Your task to perform on an android device: turn off translation in the chrome app Image 0: 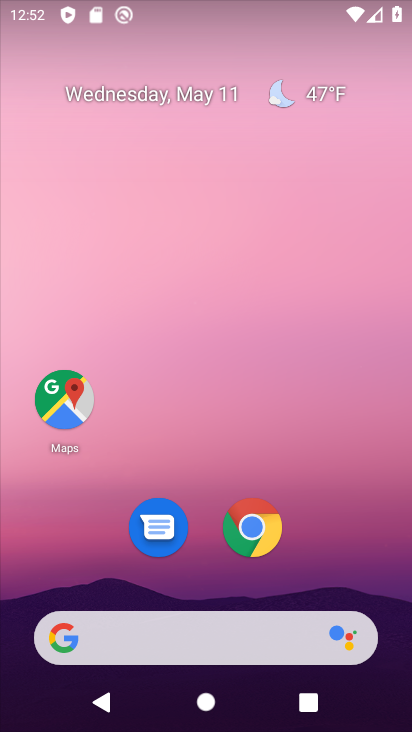
Step 0: click (247, 528)
Your task to perform on an android device: turn off translation in the chrome app Image 1: 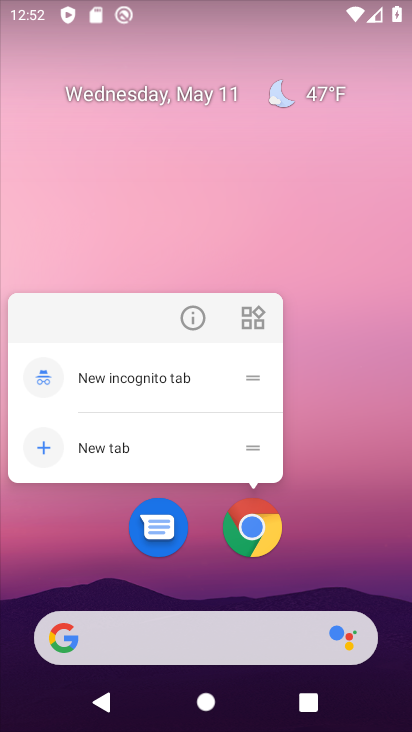
Step 1: click (249, 527)
Your task to perform on an android device: turn off translation in the chrome app Image 2: 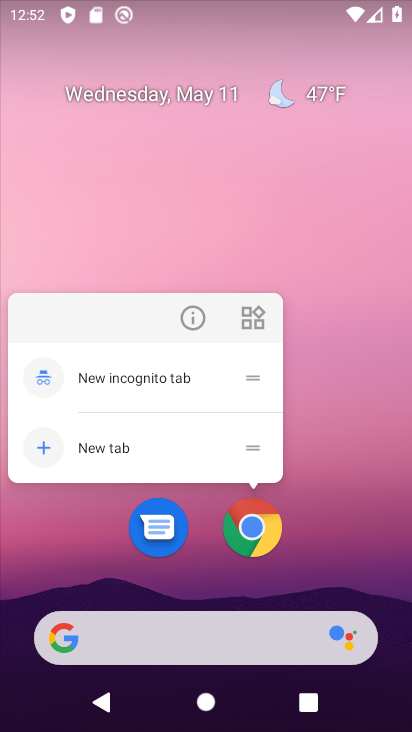
Step 2: click (250, 527)
Your task to perform on an android device: turn off translation in the chrome app Image 3: 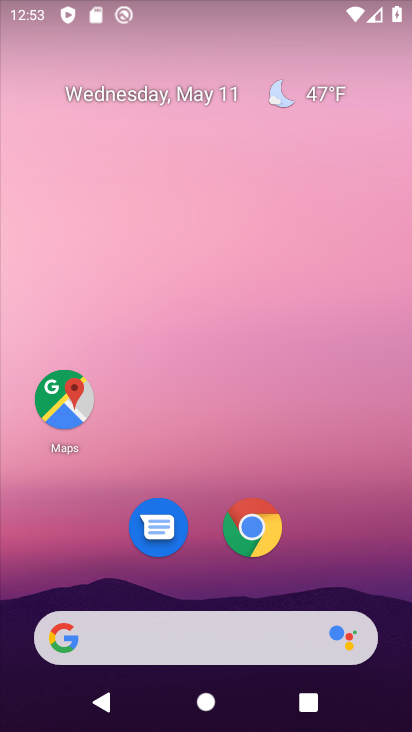
Step 3: click (276, 527)
Your task to perform on an android device: turn off translation in the chrome app Image 4: 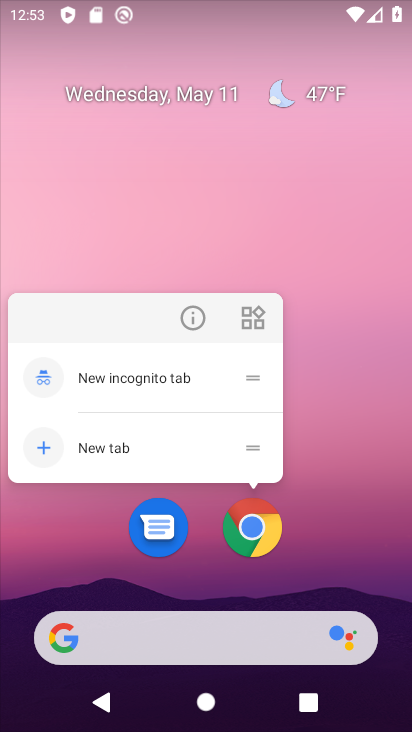
Step 4: click (271, 529)
Your task to perform on an android device: turn off translation in the chrome app Image 5: 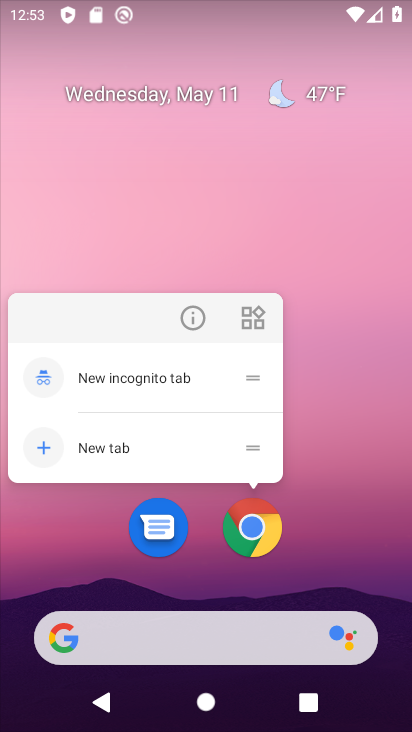
Step 5: click (272, 528)
Your task to perform on an android device: turn off translation in the chrome app Image 6: 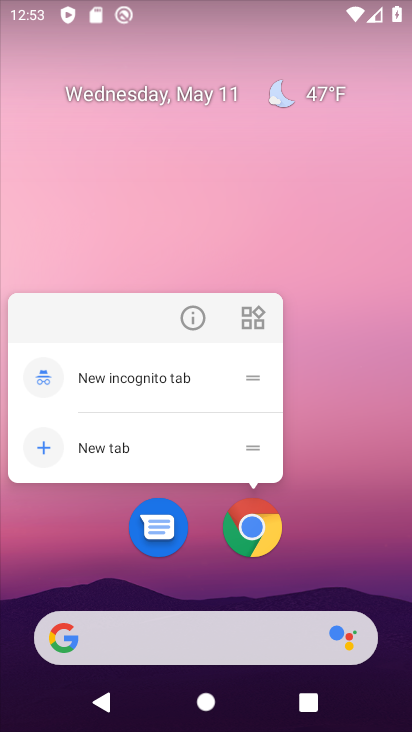
Step 6: click (260, 523)
Your task to perform on an android device: turn off translation in the chrome app Image 7: 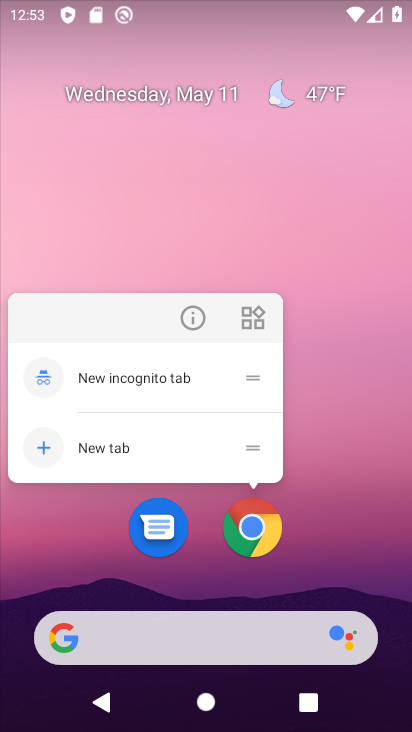
Step 7: click (259, 522)
Your task to perform on an android device: turn off translation in the chrome app Image 8: 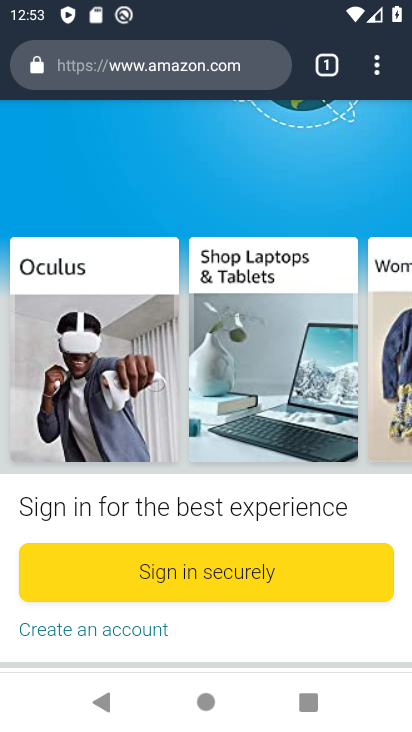
Step 8: click (389, 62)
Your task to perform on an android device: turn off translation in the chrome app Image 9: 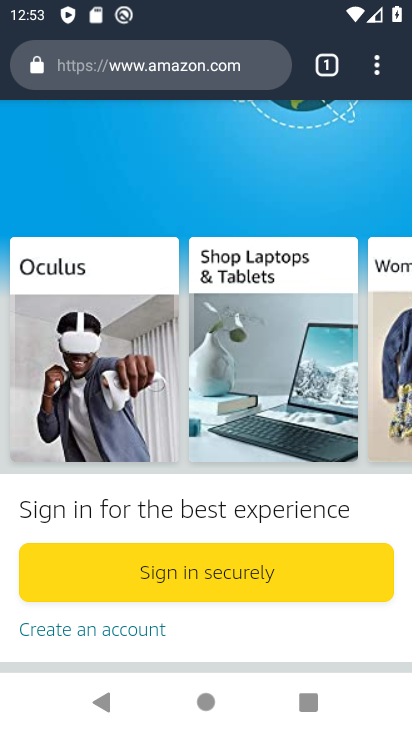
Step 9: click (377, 61)
Your task to perform on an android device: turn off translation in the chrome app Image 10: 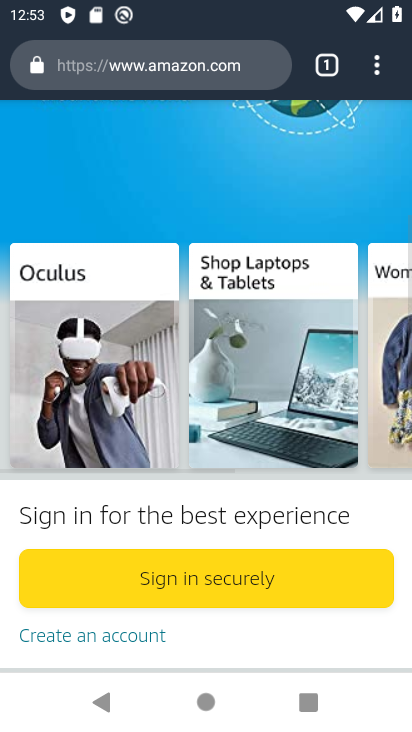
Step 10: click (376, 61)
Your task to perform on an android device: turn off translation in the chrome app Image 11: 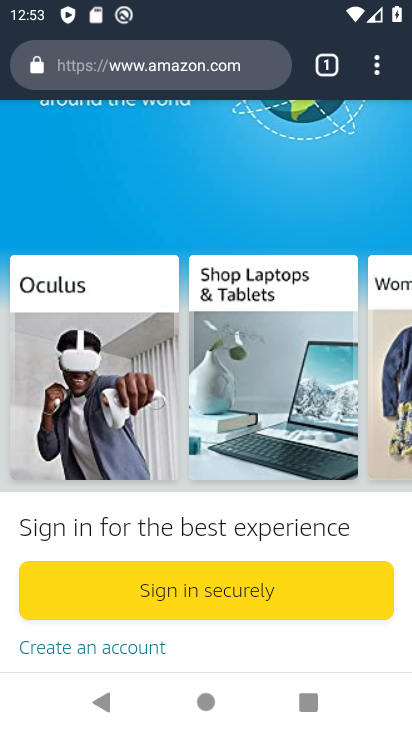
Step 11: click (336, 60)
Your task to perform on an android device: turn off translation in the chrome app Image 12: 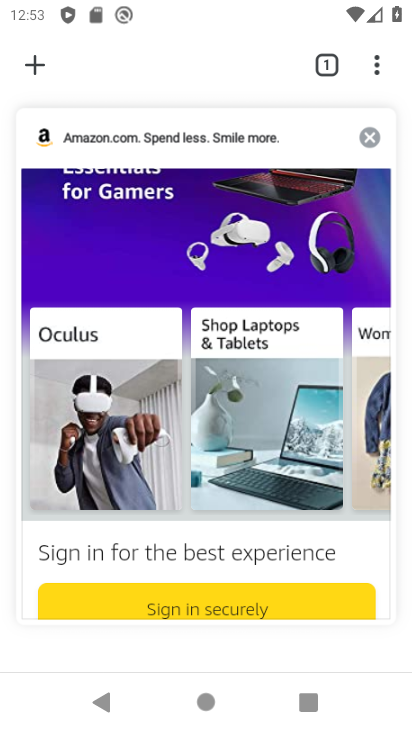
Step 12: click (362, 136)
Your task to perform on an android device: turn off translation in the chrome app Image 13: 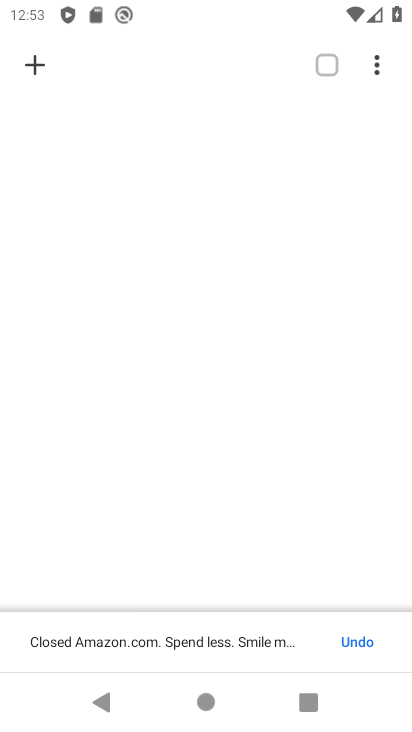
Step 13: click (376, 67)
Your task to perform on an android device: turn off translation in the chrome app Image 14: 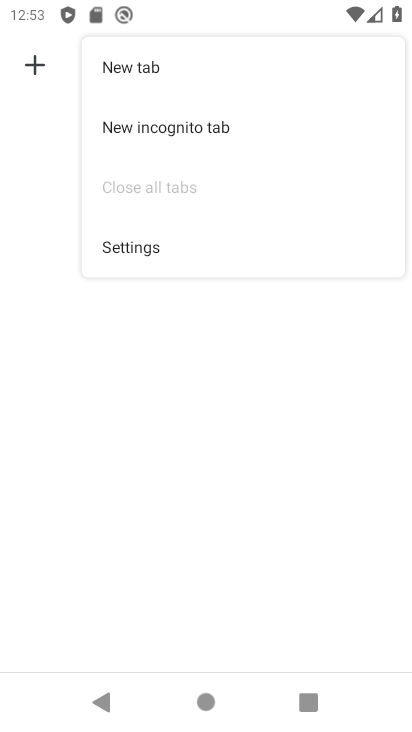
Step 14: click (156, 243)
Your task to perform on an android device: turn off translation in the chrome app Image 15: 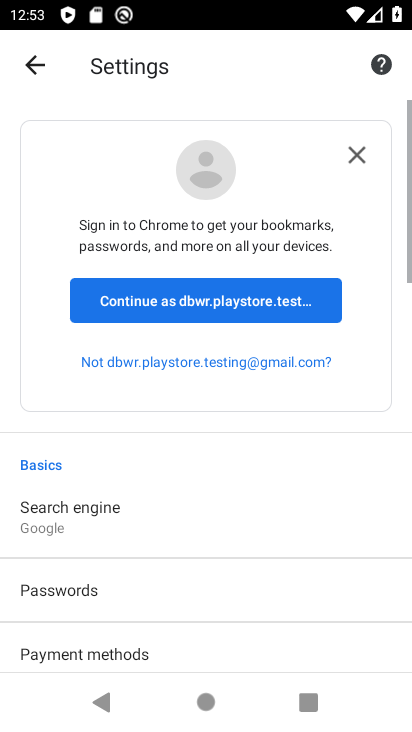
Step 15: drag from (104, 540) to (167, 74)
Your task to perform on an android device: turn off translation in the chrome app Image 16: 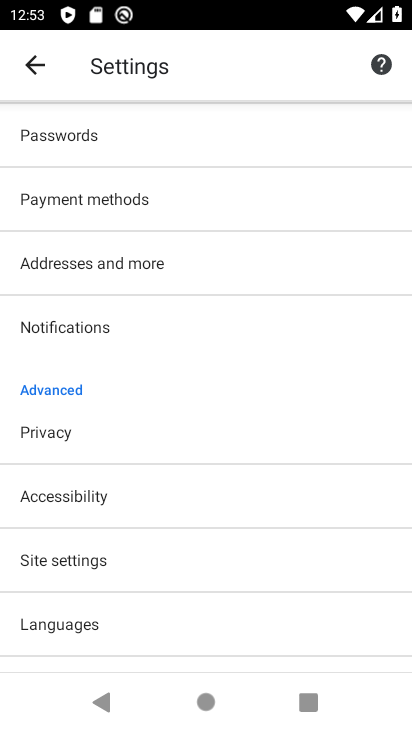
Step 16: drag from (144, 413) to (227, 57)
Your task to perform on an android device: turn off translation in the chrome app Image 17: 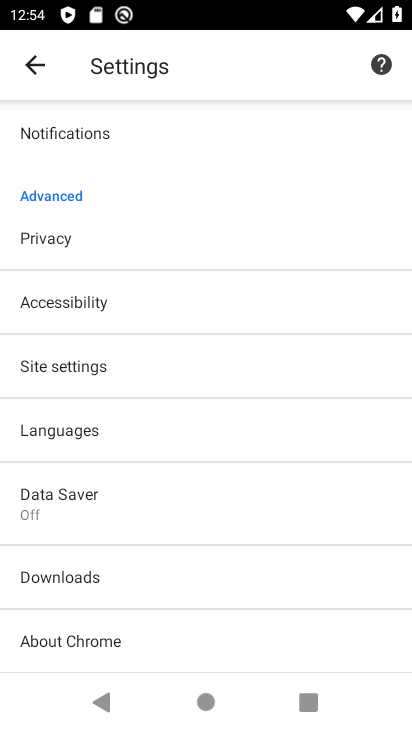
Step 17: click (193, 355)
Your task to perform on an android device: turn off translation in the chrome app Image 18: 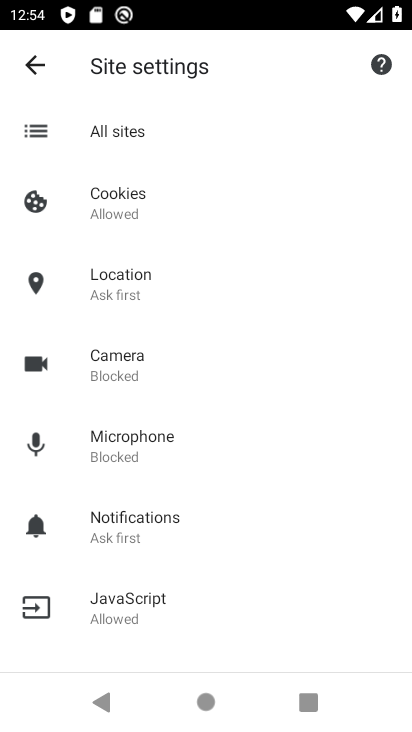
Step 18: drag from (269, 496) to (334, 39)
Your task to perform on an android device: turn off translation in the chrome app Image 19: 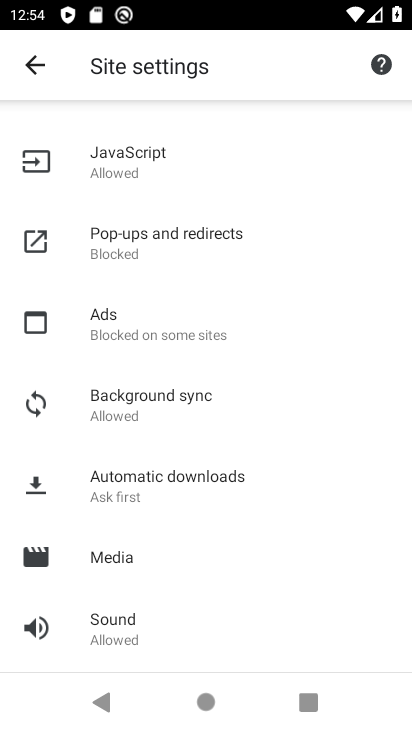
Step 19: drag from (162, 503) to (199, 169)
Your task to perform on an android device: turn off translation in the chrome app Image 20: 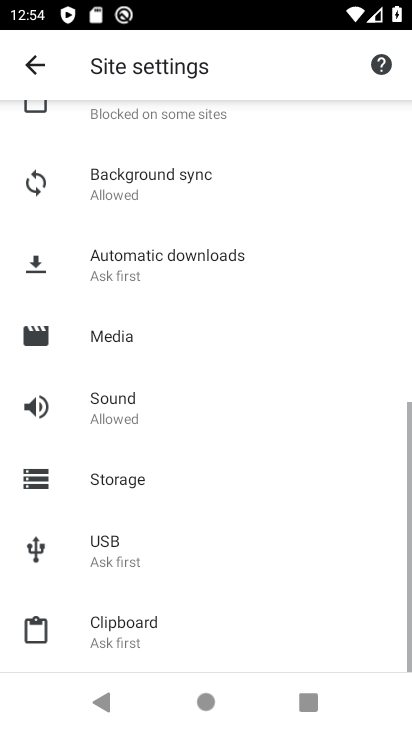
Step 20: drag from (148, 502) to (168, 126)
Your task to perform on an android device: turn off translation in the chrome app Image 21: 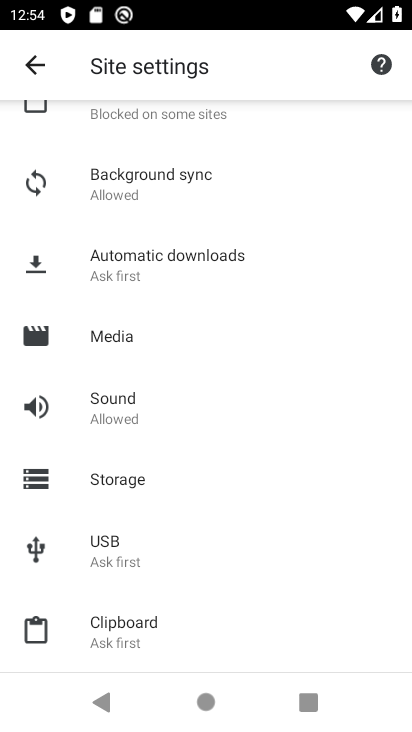
Step 21: click (41, 54)
Your task to perform on an android device: turn off translation in the chrome app Image 22: 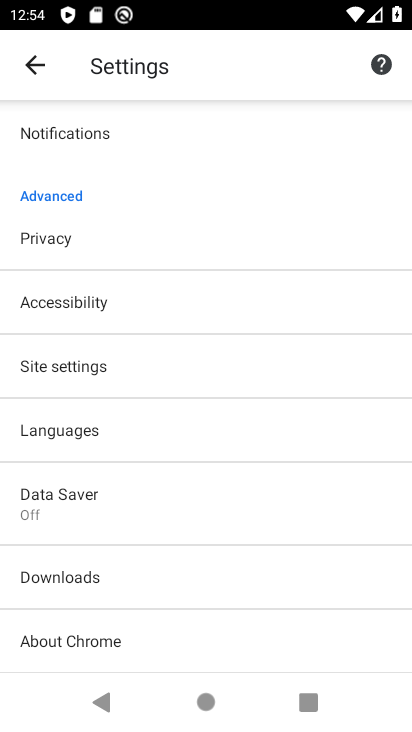
Step 22: drag from (159, 635) to (256, 237)
Your task to perform on an android device: turn off translation in the chrome app Image 23: 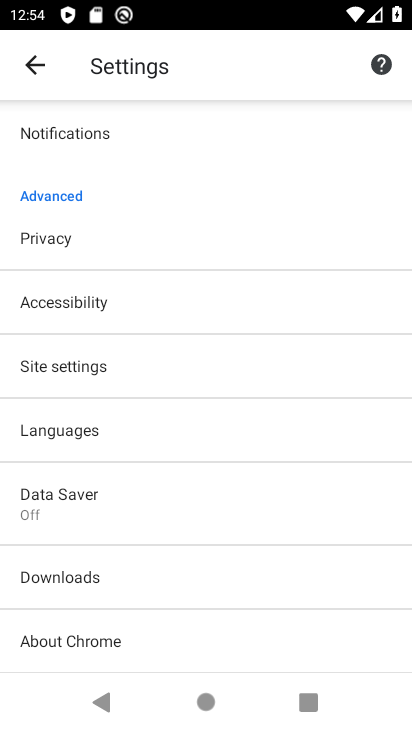
Step 23: click (129, 573)
Your task to perform on an android device: turn off translation in the chrome app Image 24: 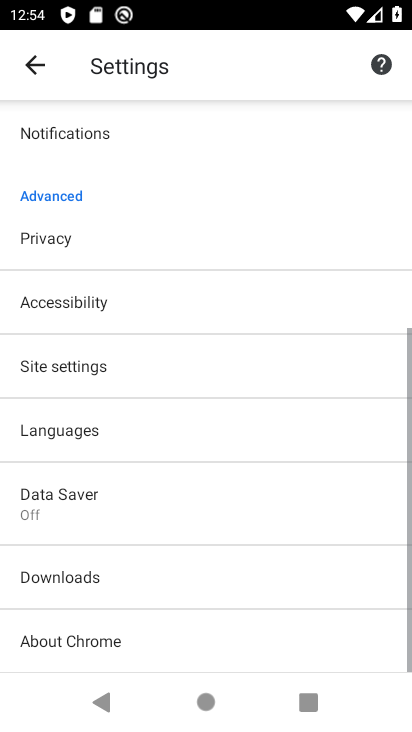
Step 24: click (107, 284)
Your task to perform on an android device: turn off translation in the chrome app Image 25: 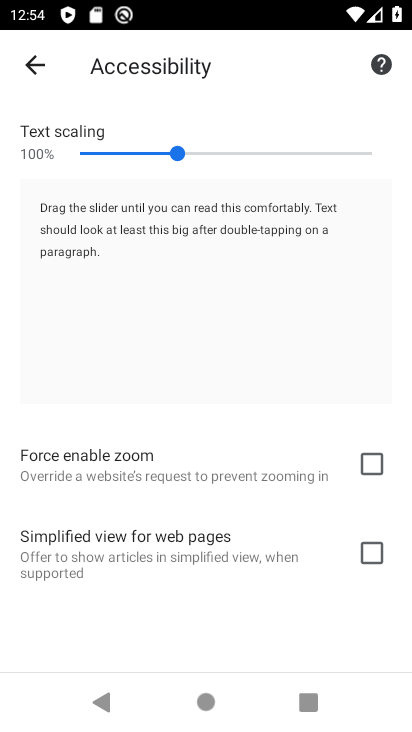
Step 25: drag from (115, 453) to (162, 144)
Your task to perform on an android device: turn off translation in the chrome app Image 26: 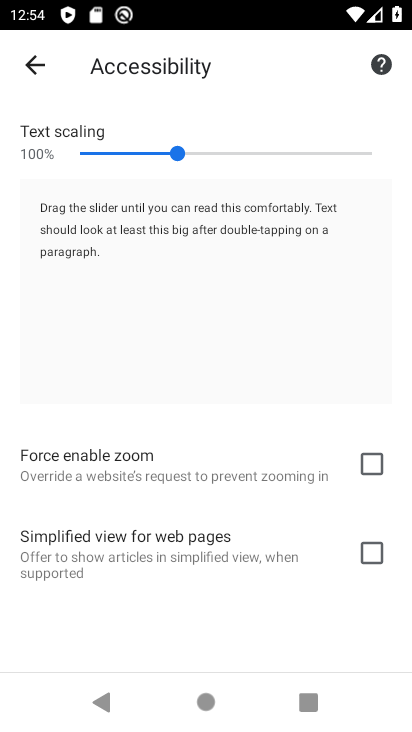
Step 26: click (25, 67)
Your task to perform on an android device: turn off translation in the chrome app Image 27: 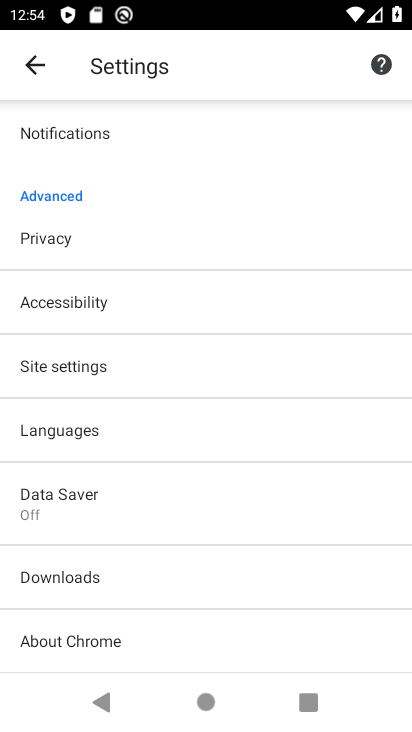
Step 27: click (113, 235)
Your task to perform on an android device: turn off translation in the chrome app Image 28: 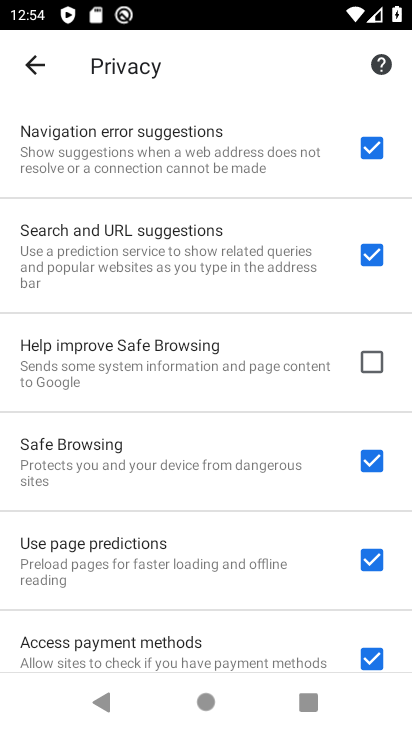
Step 28: task complete